Your task to perform on an android device: turn off smart reply in the gmail app Image 0: 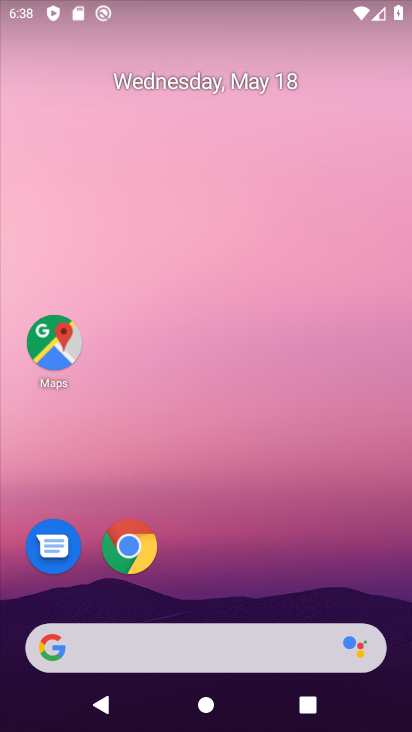
Step 0: drag from (397, 627) to (310, 13)
Your task to perform on an android device: turn off smart reply in the gmail app Image 1: 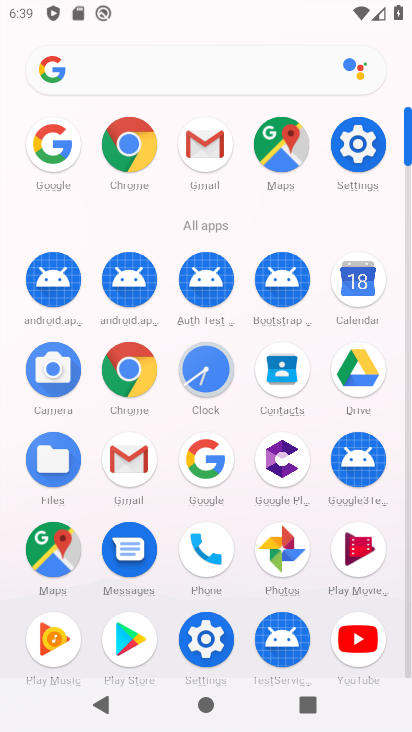
Step 1: click (131, 477)
Your task to perform on an android device: turn off smart reply in the gmail app Image 2: 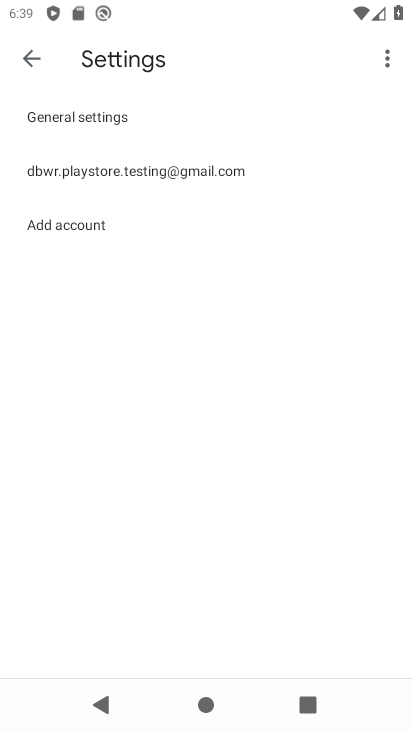
Step 2: click (204, 176)
Your task to perform on an android device: turn off smart reply in the gmail app Image 3: 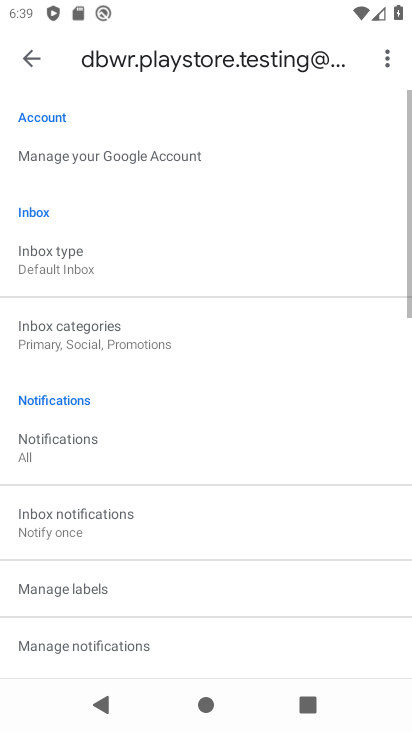
Step 3: drag from (225, 629) to (179, 64)
Your task to perform on an android device: turn off smart reply in the gmail app Image 4: 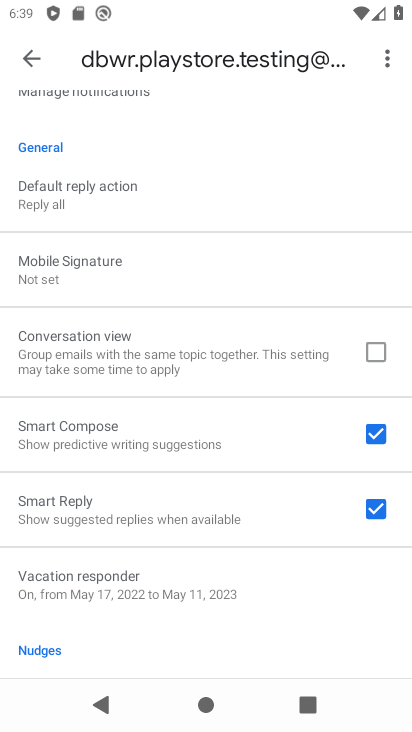
Step 4: click (272, 521)
Your task to perform on an android device: turn off smart reply in the gmail app Image 5: 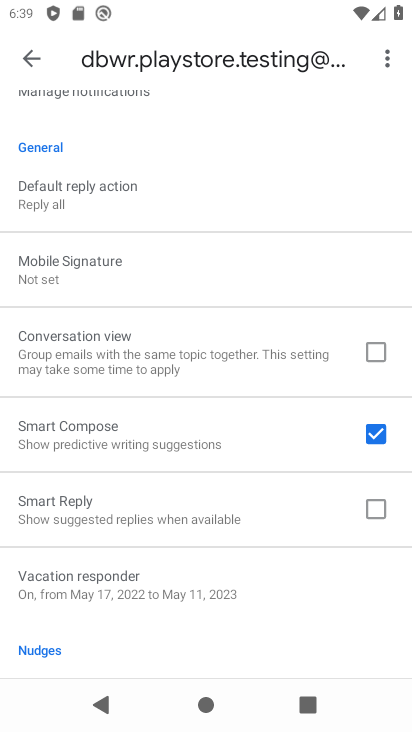
Step 5: task complete